Your task to perform on an android device: Open sound settings Image 0: 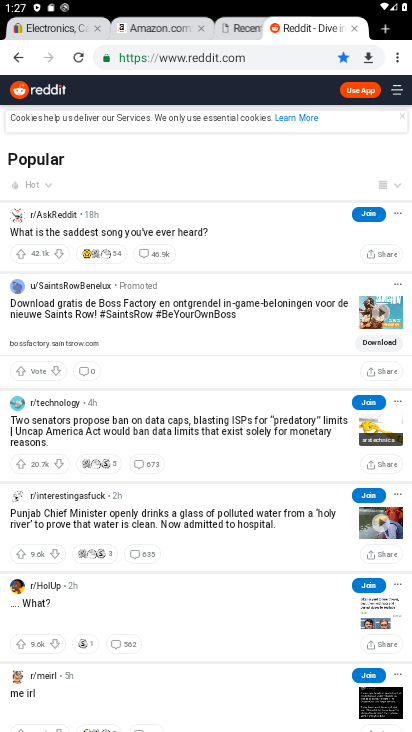
Step 0: press home button
Your task to perform on an android device: Open sound settings Image 1: 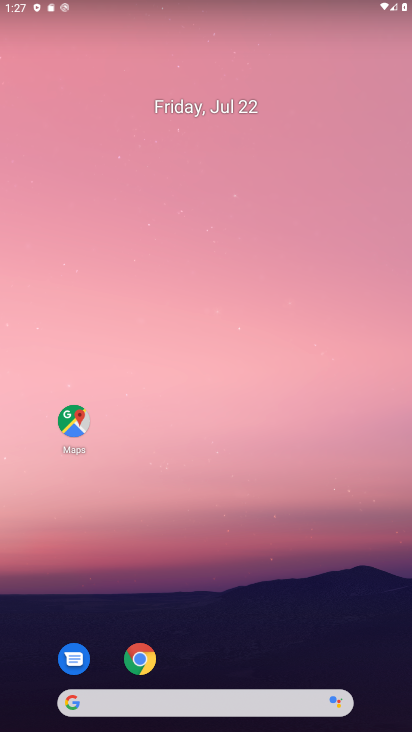
Step 1: drag from (236, 645) to (283, 19)
Your task to perform on an android device: Open sound settings Image 2: 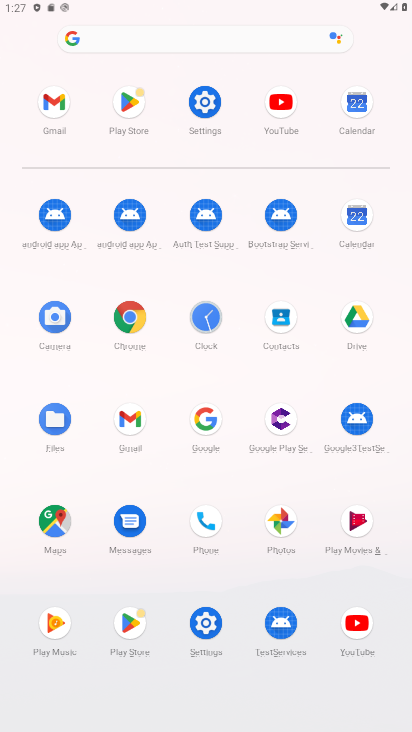
Step 2: click (199, 648)
Your task to perform on an android device: Open sound settings Image 3: 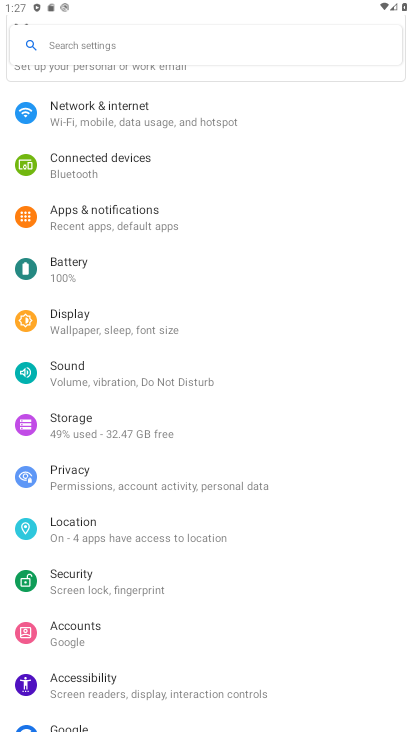
Step 3: click (155, 373)
Your task to perform on an android device: Open sound settings Image 4: 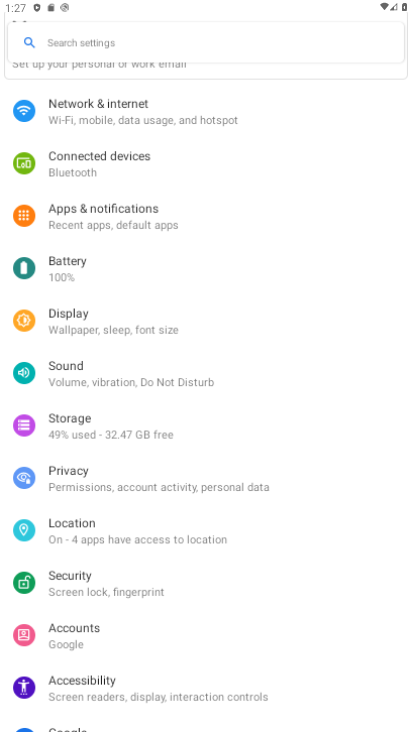
Step 4: task complete